Your task to perform on an android device: show emergency info Image 0: 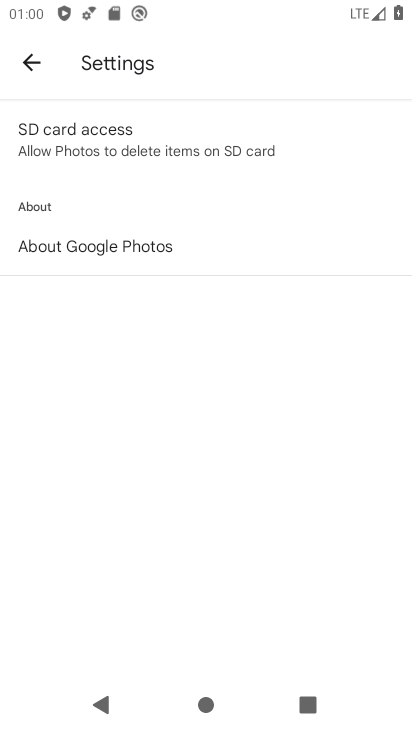
Step 0: press home button
Your task to perform on an android device: show emergency info Image 1: 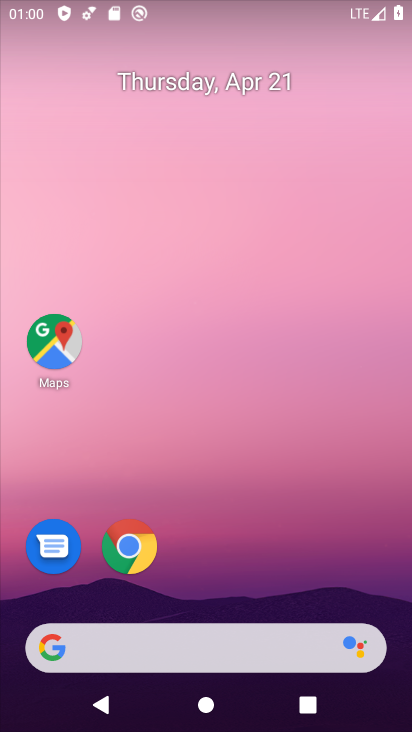
Step 1: drag from (278, 580) to (284, 208)
Your task to perform on an android device: show emergency info Image 2: 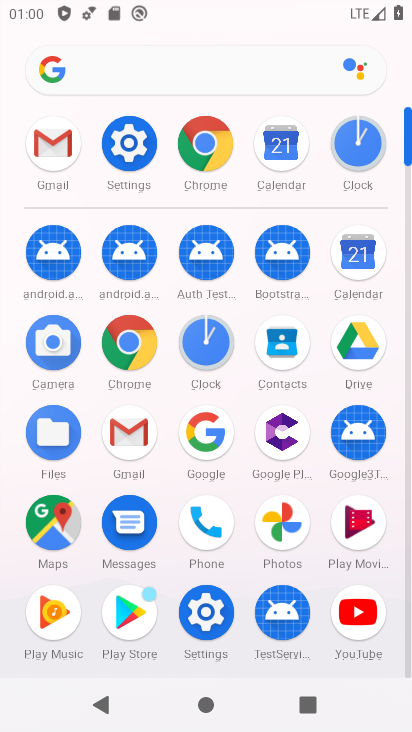
Step 2: click (142, 159)
Your task to perform on an android device: show emergency info Image 3: 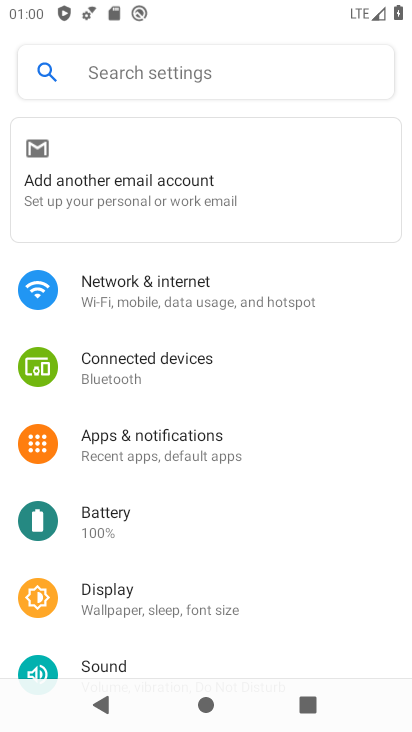
Step 3: click (134, 70)
Your task to perform on an android device: show emergency info Image 4: 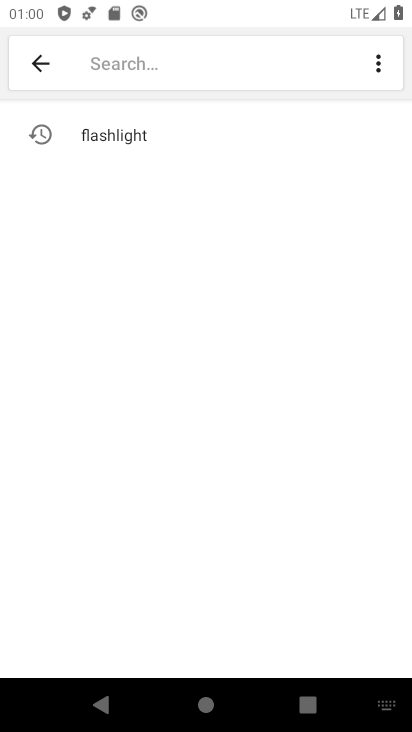
Step 4: type "emergrncy info"
Your task to perform on an android device: show emergency info Image 5: 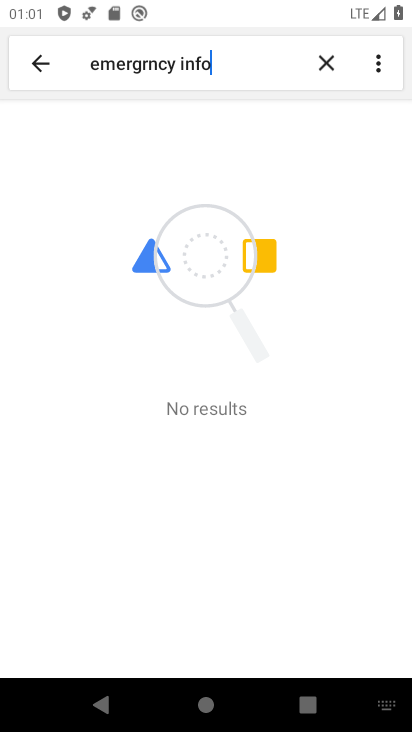
Step 5: click (328, 63)
Your task to perform on an android device: show emergency info Image 6: 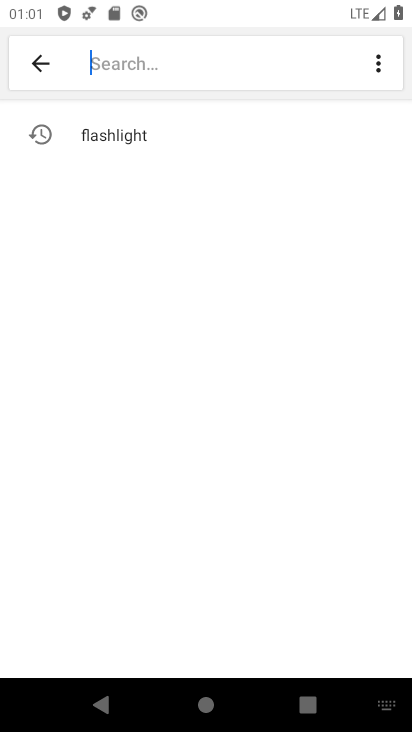
Step 6: type "emergency info"
Your task to perform on an android device: show emergency info Image 7: 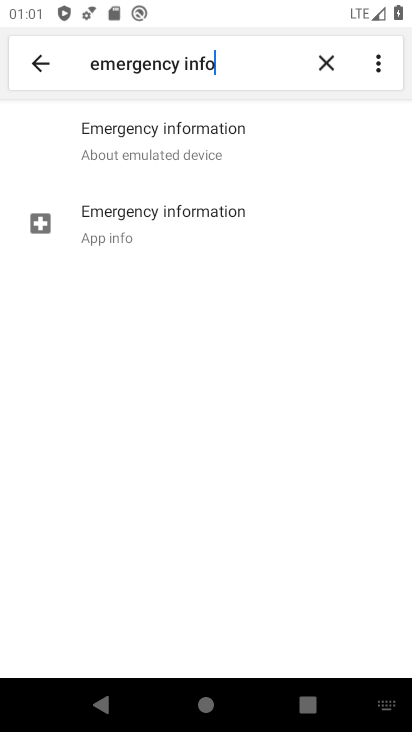
Step 7: click (181, 215)
Your task to perform on an android device: show emergency info Image 8: 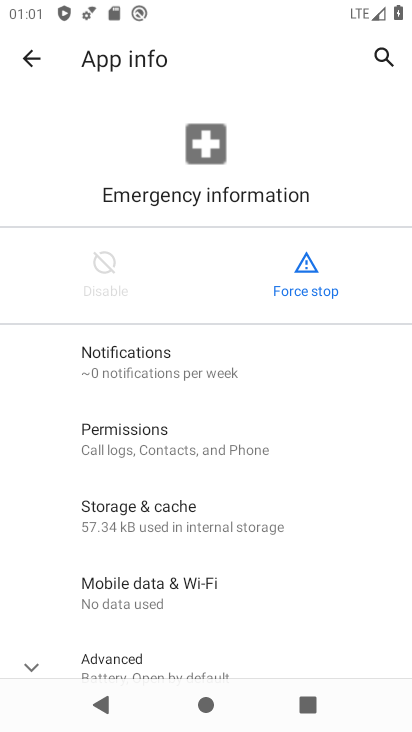
Step 8: task complete